Your task to perform on an android device: change text size in settings app Image 0: 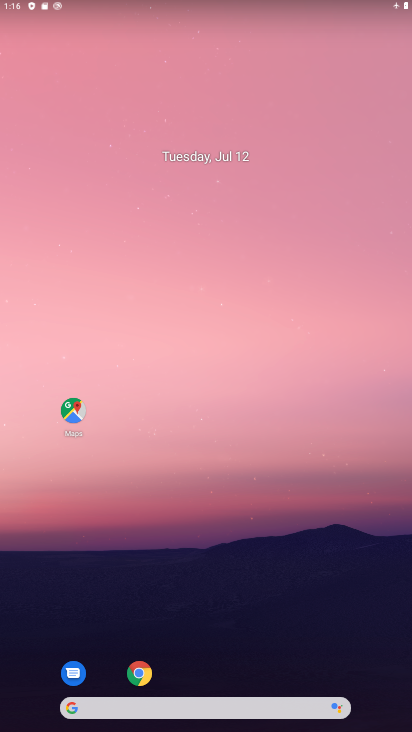
Step 0: drag from (202, 494) to (226, 295)
Your task to perform on an android device: change text size in settings app Image 1: 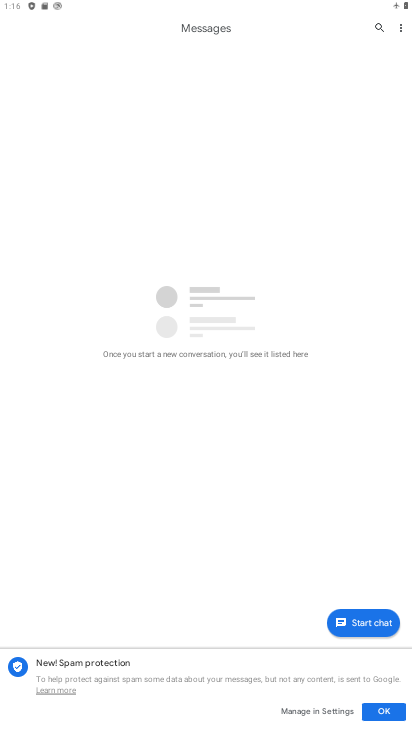
Step 1: press home button
Your task to perform on an android device: change text size in settings app Image 2: 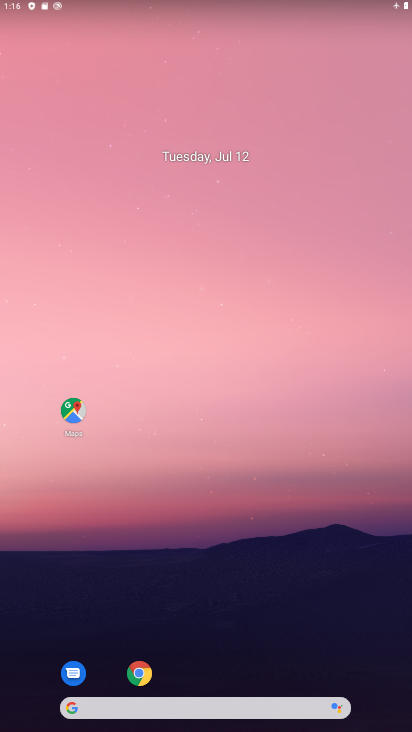
Step 2: drag from (181, 655) to (183, 463)
Your task to perform on an android device: change text size in settings app Image 3: 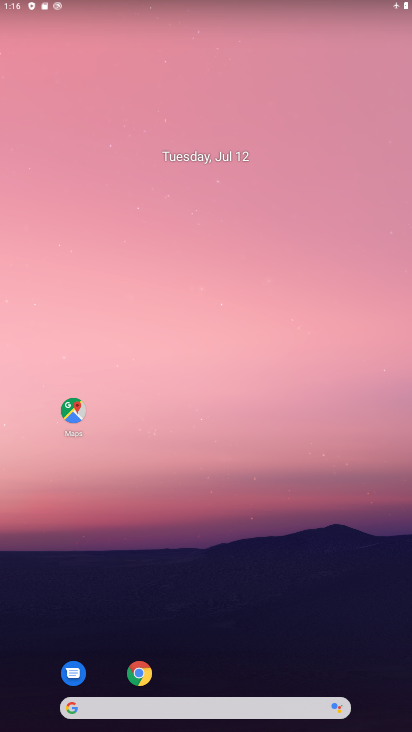
Step 3: drag from (206, 639) to (186, 403)
Your task to perform on an android device: change text size in settings app Image 4: 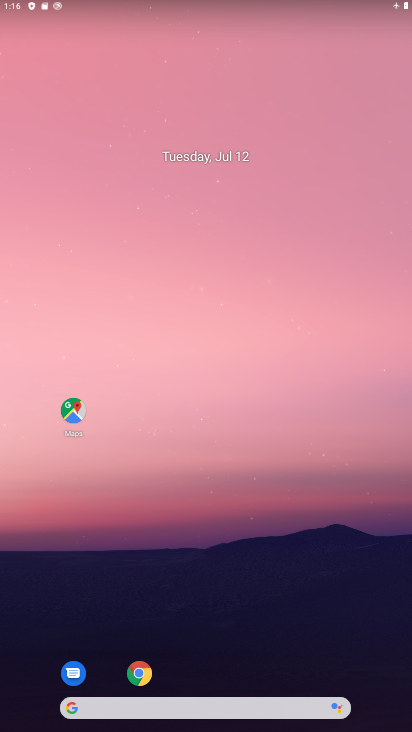
Step 4: drag from (218, 695) to (230, 213)
Your task to perform on an android device: change text size in settings app Image 5: 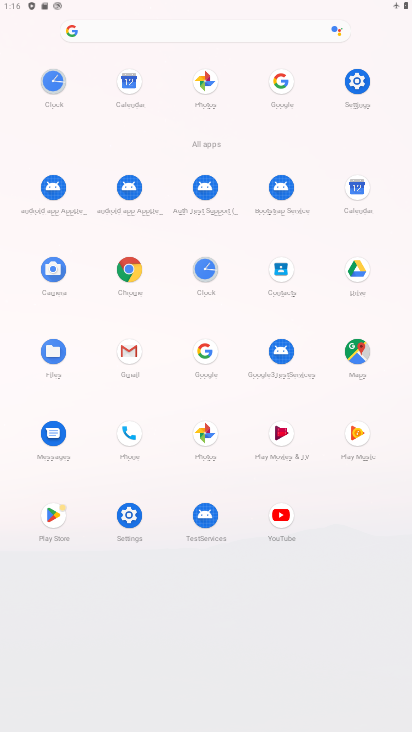
Step 5: click (356, 68)
Your task to perform on an android device: change text size in settings app Image 6: 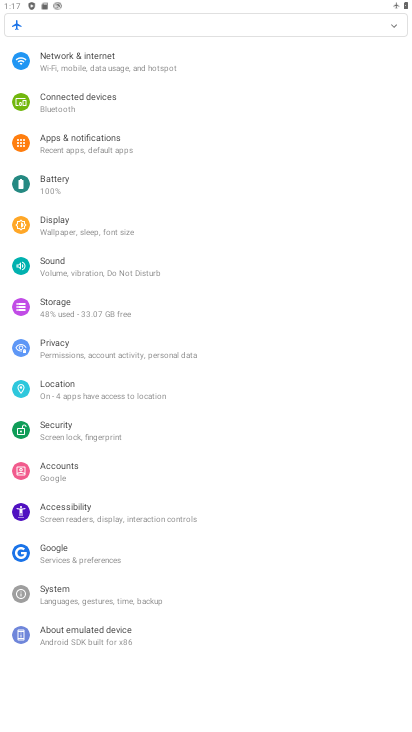
Step 6: click (74, 588)
Your task to perform on an android device: change text size in settings app Image 7: 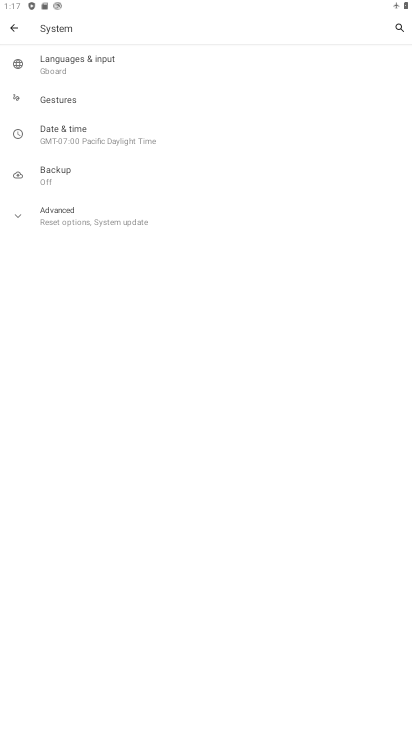
Step 7: click (15, 25)
Your task to perform on an android device: change text size in settings app Image 8: 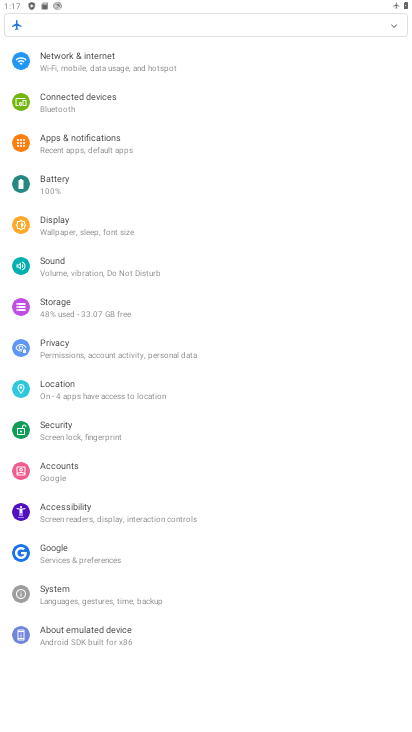
Step 8: click (91, 513)
Your task to perform on an android device: change text size in settings app Image 9: 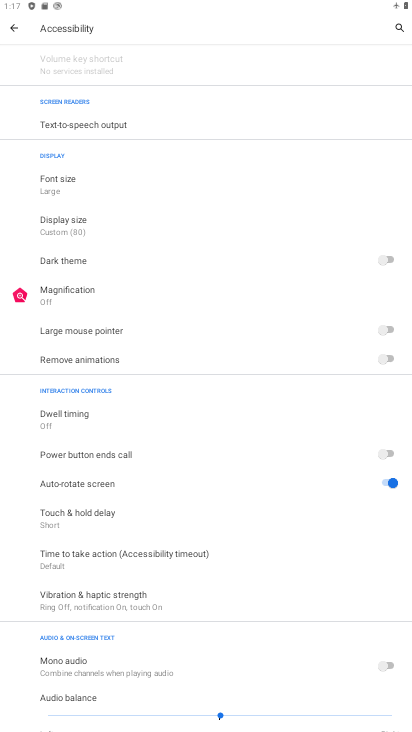
Step 9: click (114, 173)
Your task to perform on an android device: change text size in settings app Image 10: 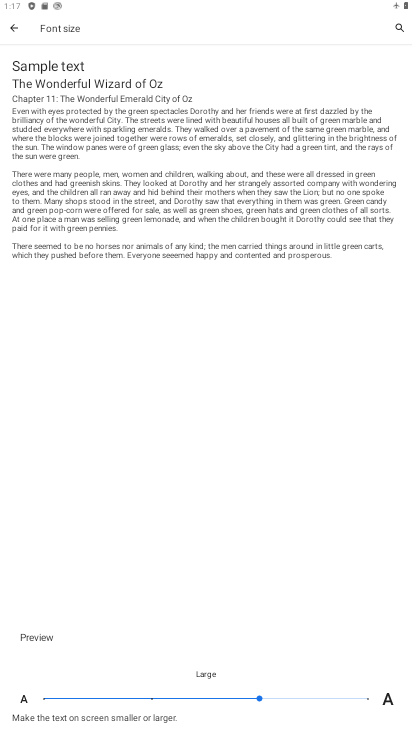
Step 10: click (152, 696)
Your task to perform on an android device: change text size in settings app Image 11: 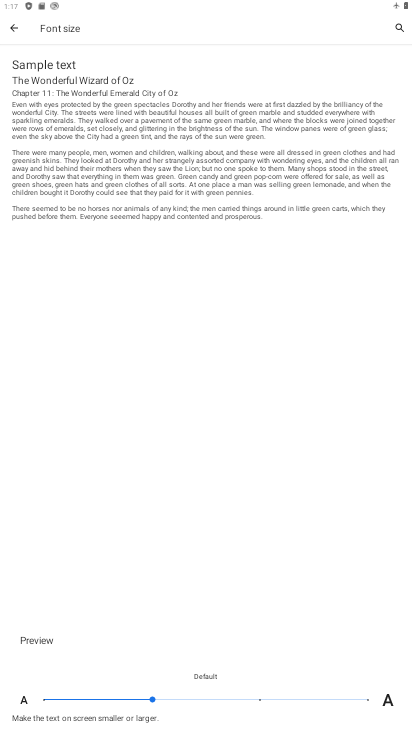
Step 11: task complete